Your task to perform on an android device: turn off javascript in the chrome app Image 0: 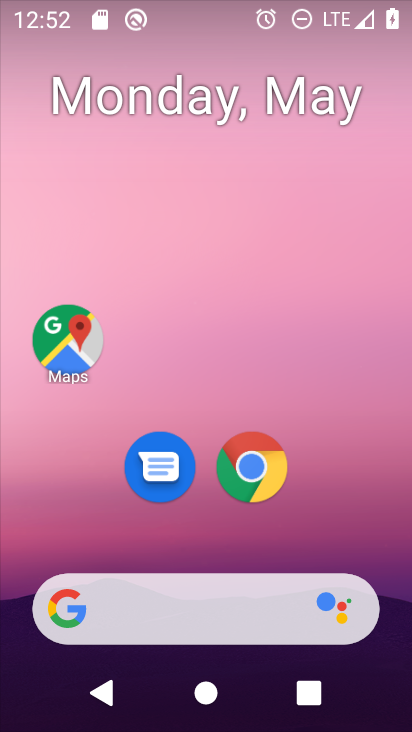
Step 0: click (254, 469)
Your task to perform on an android device: turn off javascript in the chrome app Image 1: 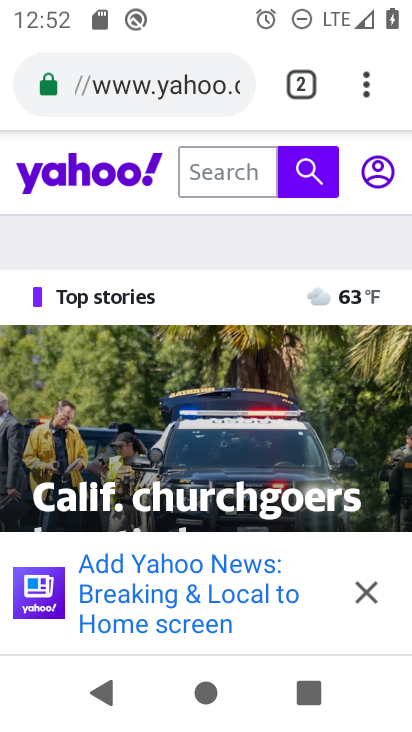
Step 1: click (365, 84)
Your task to perform on an android device: turn off javascript in the chrome app Image 2: 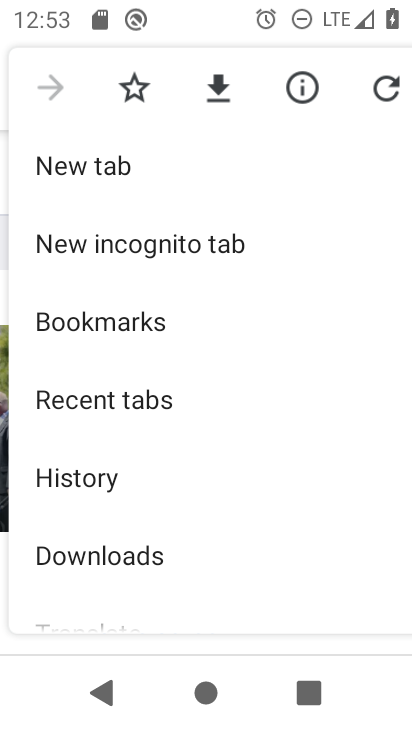
Step 2: drag from (193, 494) to (204, 144)
Your task to perform on an android device: turn off javascript in the chrome app Image 3: 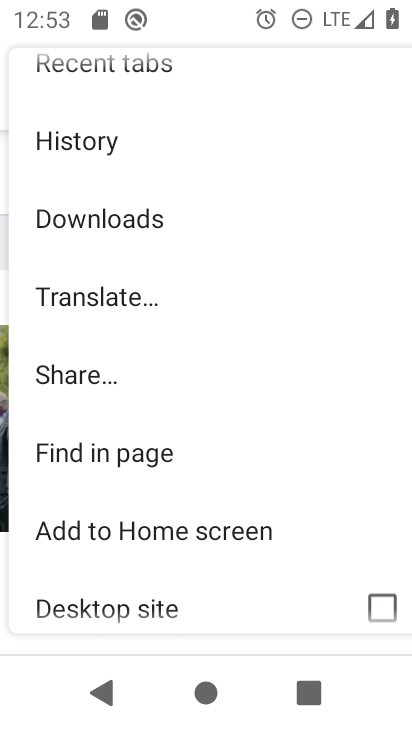
Step 3: drag from (220, 536) to (234, 168)
Your task to perform on an android device: turn off javascript in the chrome app Image 4: 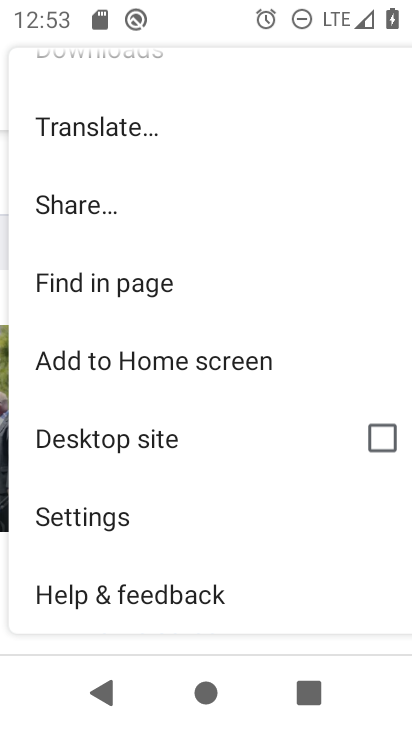
Step 4: click (100, 511)
Your task to perform on an android device: turn off javascript in the chrome app Image 5: 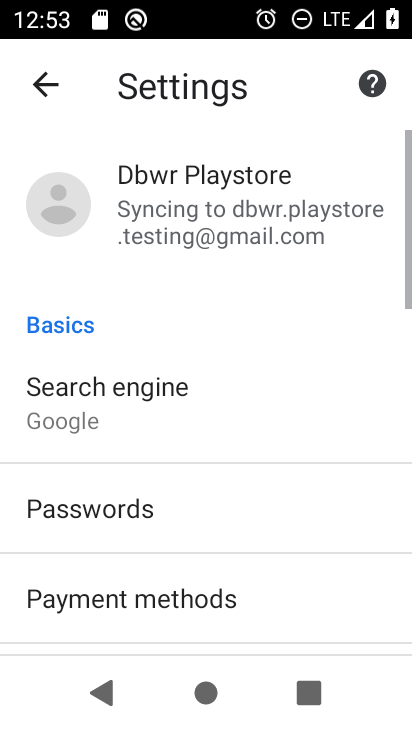
Step 5: drag from (201, 535) to (205, 182)
Your task to perform on an android device: turn off javascript in the chrome app Image 6: 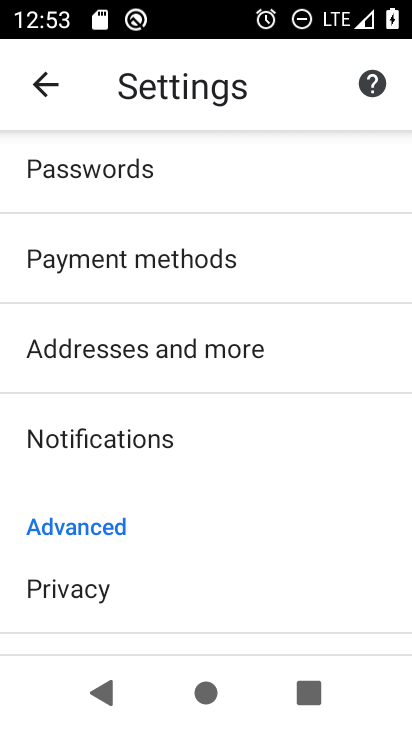
Step 6: drag from (214, 556) to (223, 204)
Your task to perform on an android device: turn off javascript in the chrome app Image 7: 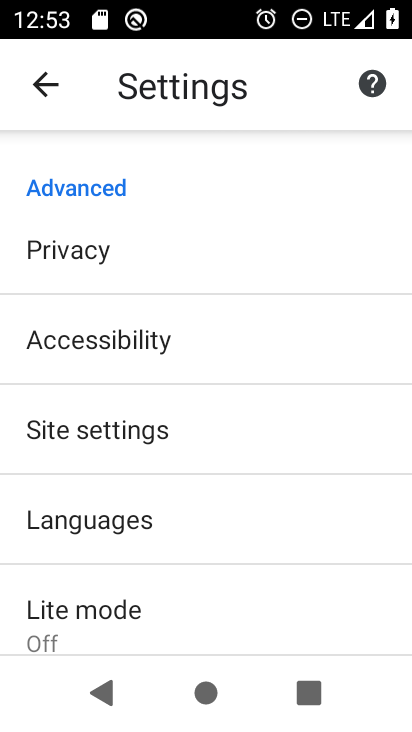
Step 7: click (126, 434)
Your task to perform on an android device: turn off javascript in the chrome app Image 8: 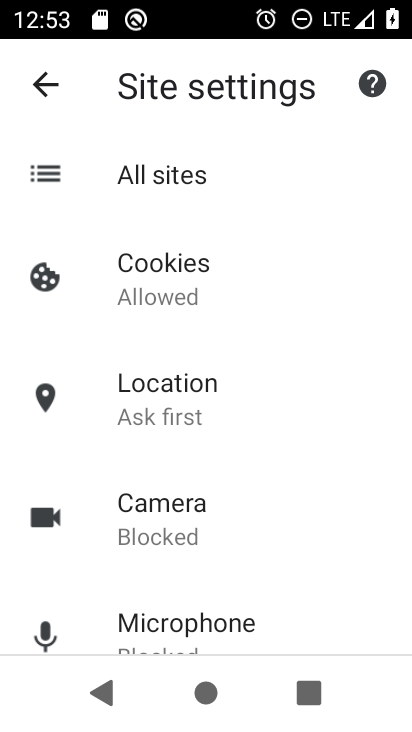
Step 8: drag from (251, 545) to (268, 225)
Your task to perform on an android device: turn off javascript in the chrome app Image 9: 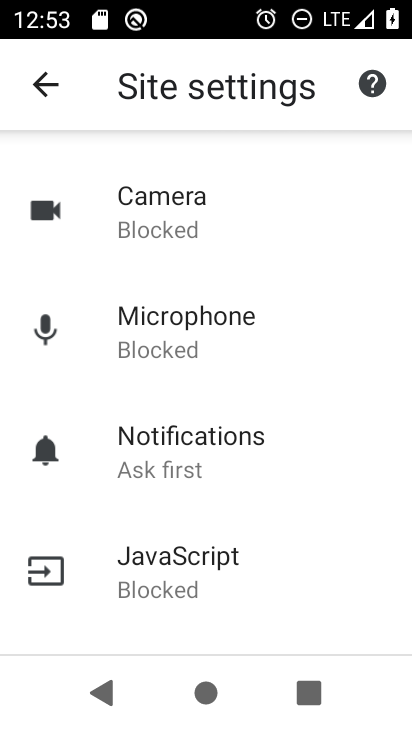
Step 9: click (162, 564)
Your task to perform on an android device: turn off javascript in the chrome app Image 10: 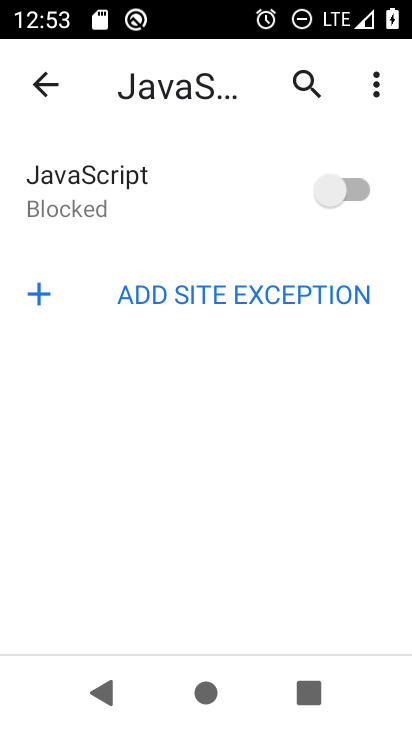
Step 10: task complete